Your task to perform on an android device: Search for the new lego star wars 2021 on Target Image 0: 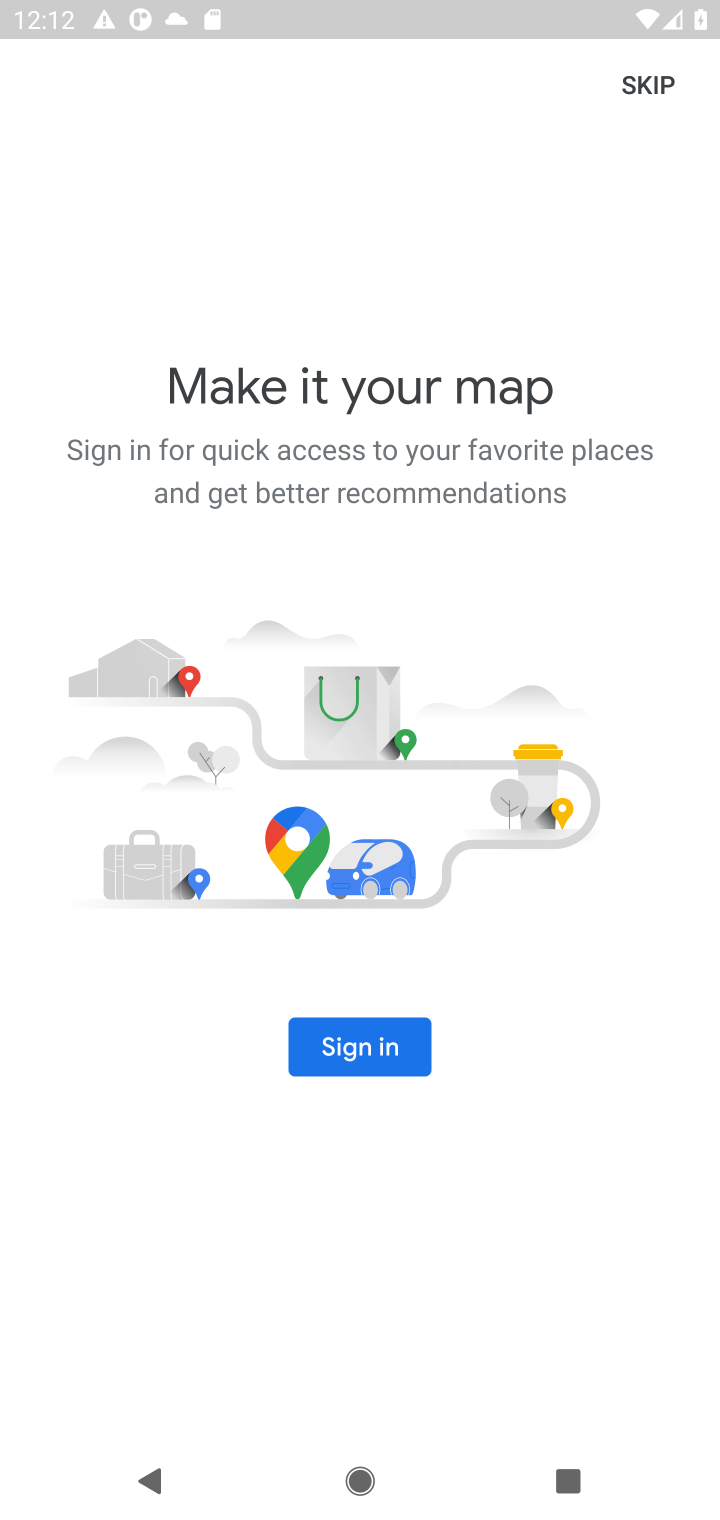
Step 0: press home button
Your task to perform on an android device: Search for the new lego star wars 2021 on Target Image 1: 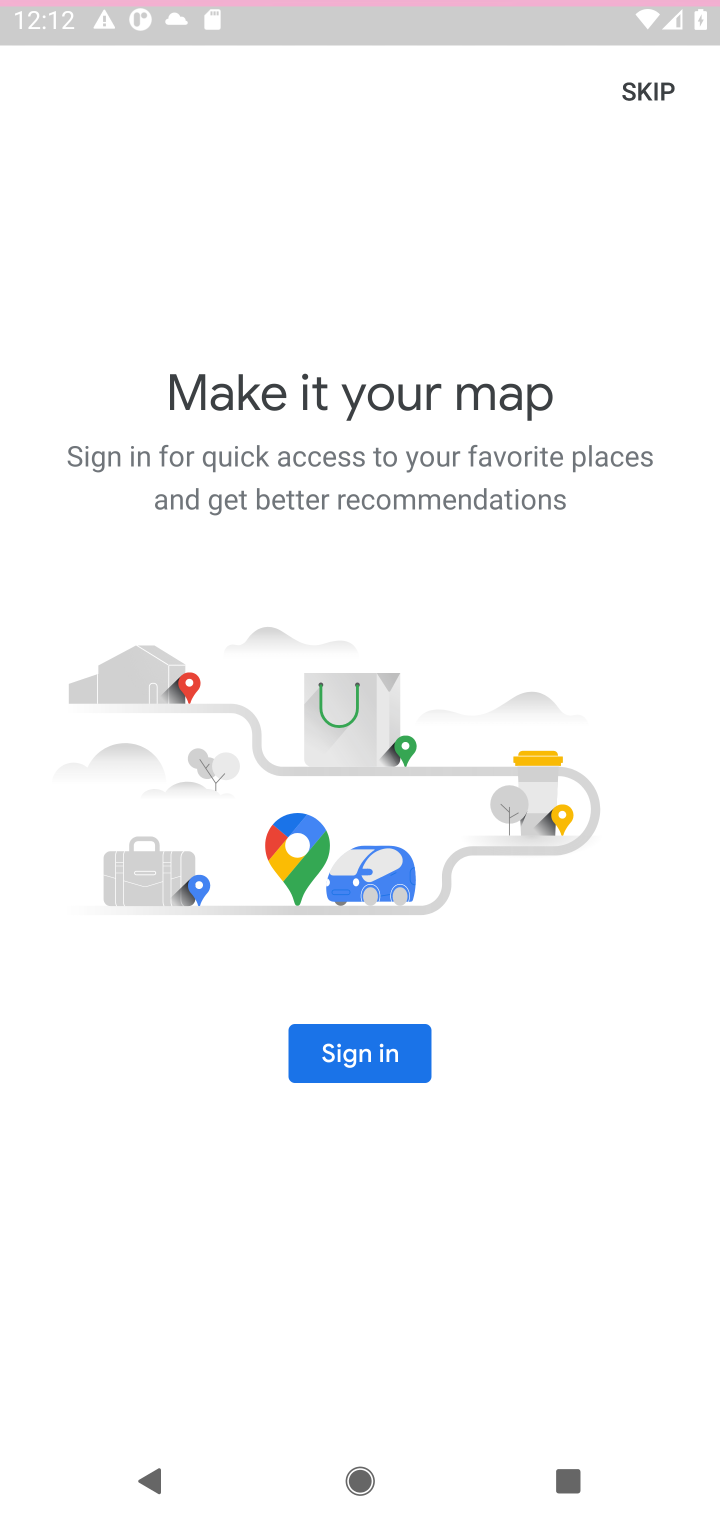
Step 1: press home button
Your task to perform on an android device: Search for the new lego star wars 2021 on Target Image 2: 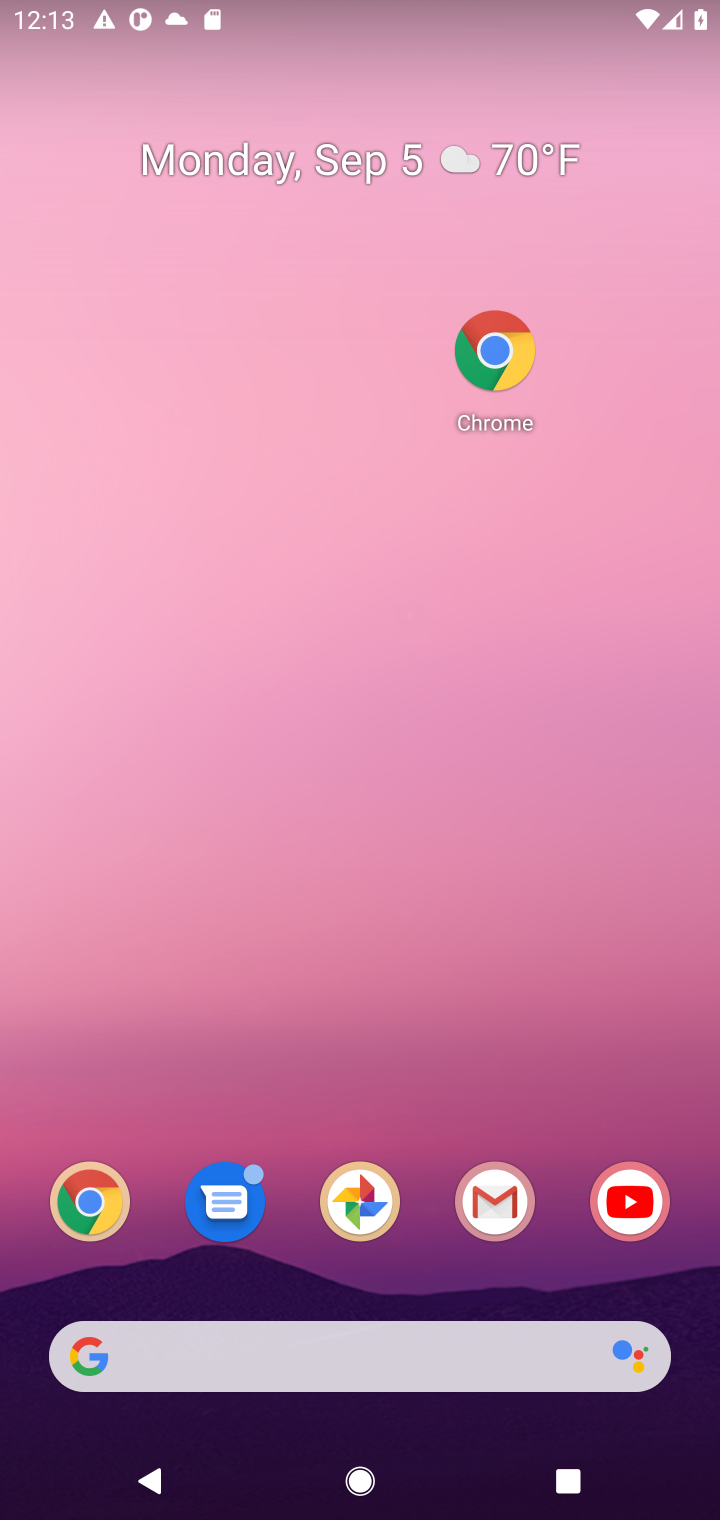
Step 2: drag from (628, 884) to (554, 200)
Your task to perform on an android device: Search for the new lego star wars 2021 on Target Image 3: 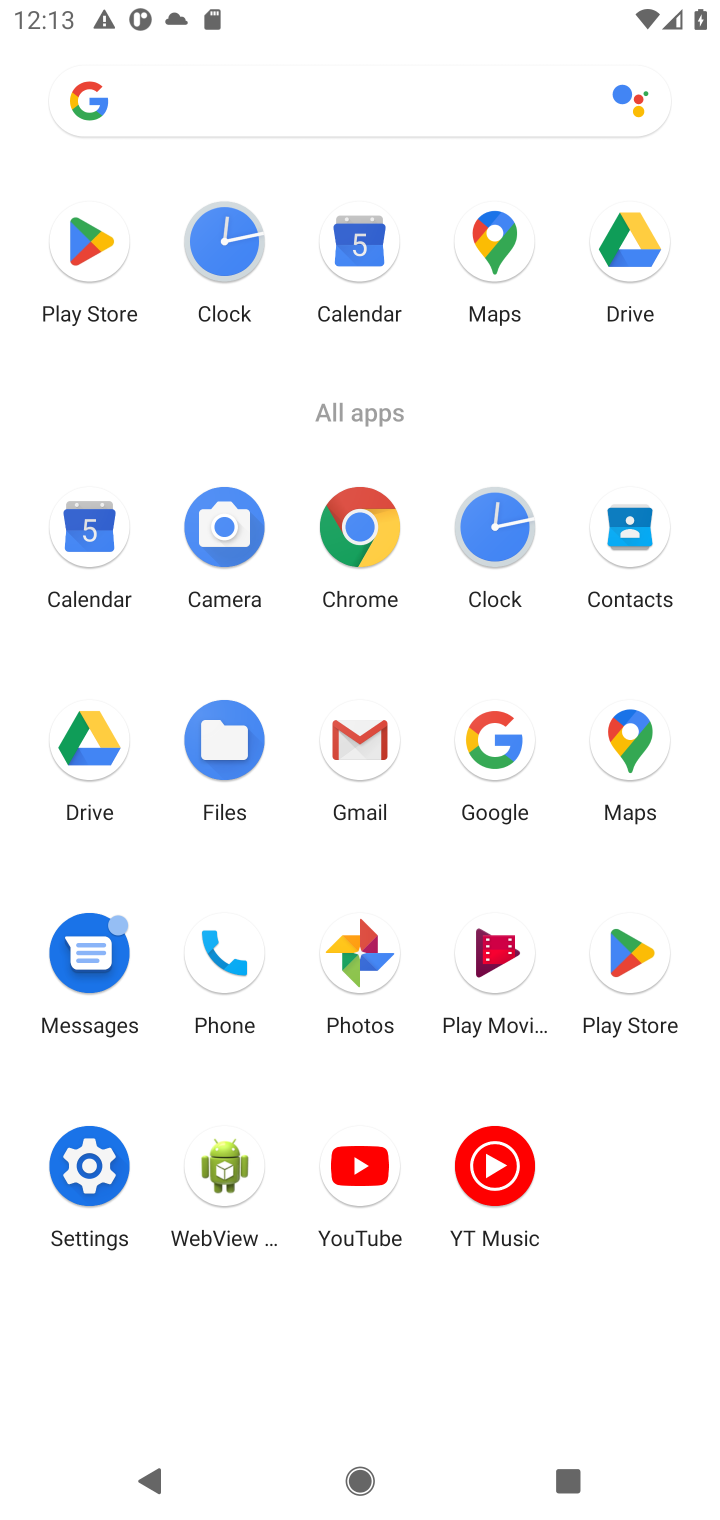
Step 3: click (346, 530)
Your task to perform on an android device: Search for the new lego star wars 2021 on Target Image 4: 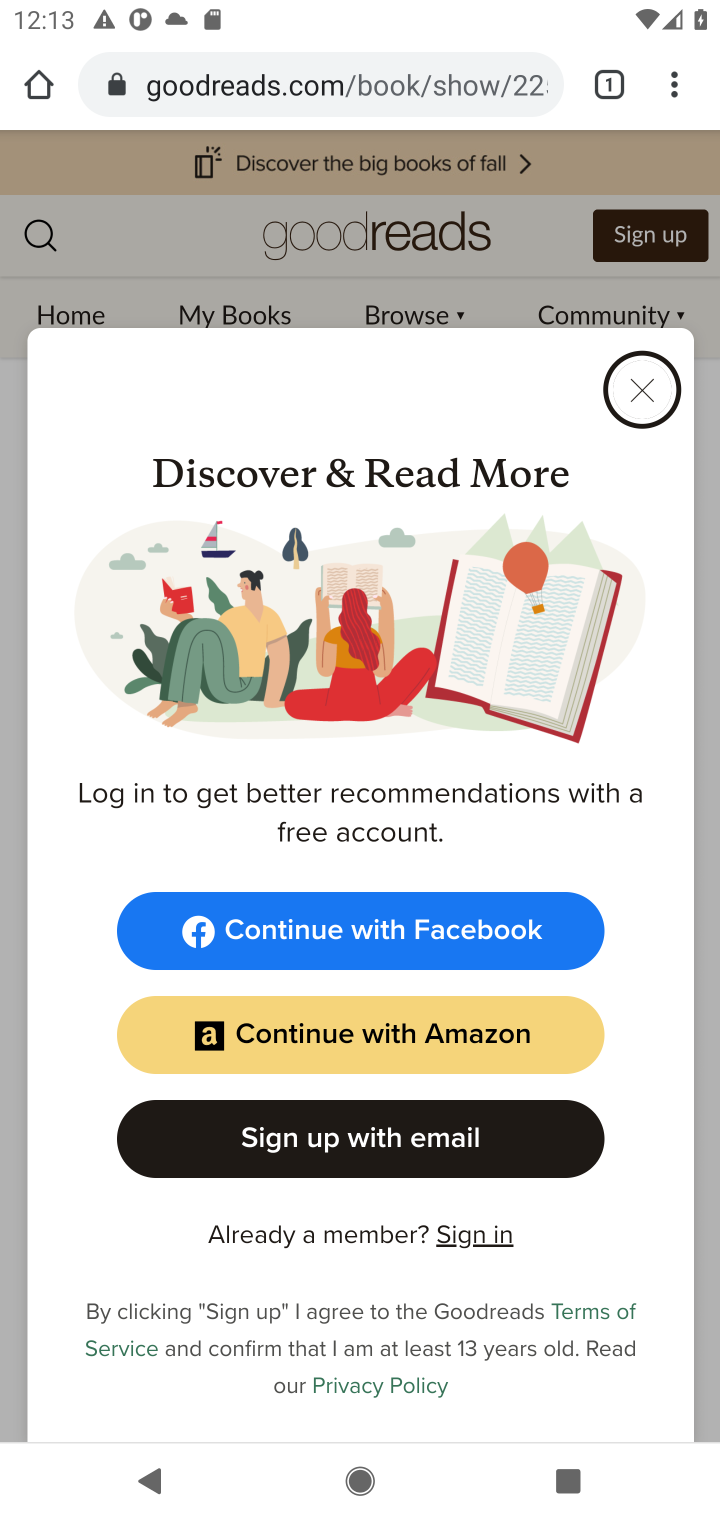
Step 4: click (416, 80)
Your task to perform on an android device: Search for the new lego star wars 2021 on Target Image 5: 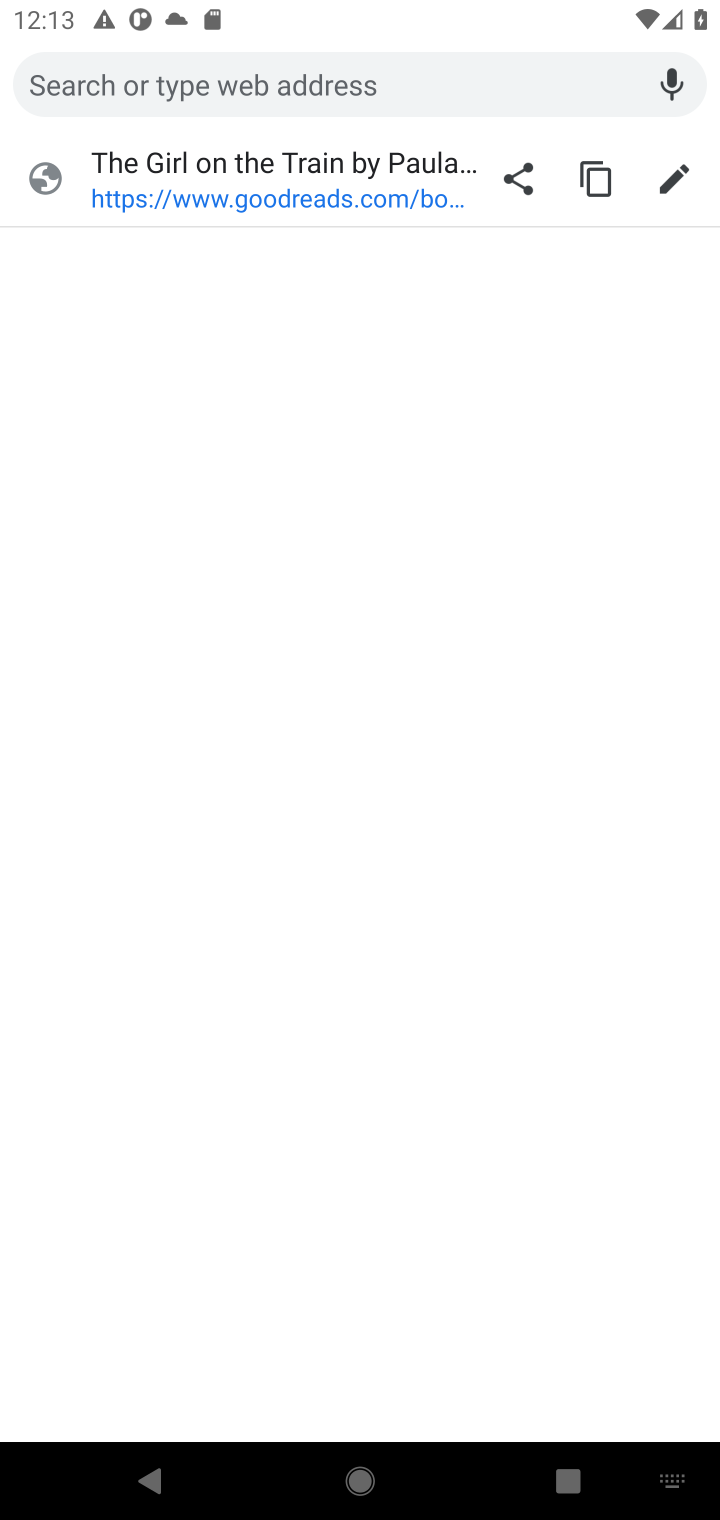
Step 5: type "new lego star wars 2021 on Target"
Your task to perform on an android device: Search for the new lego star wars 2021 on Target Image 6: 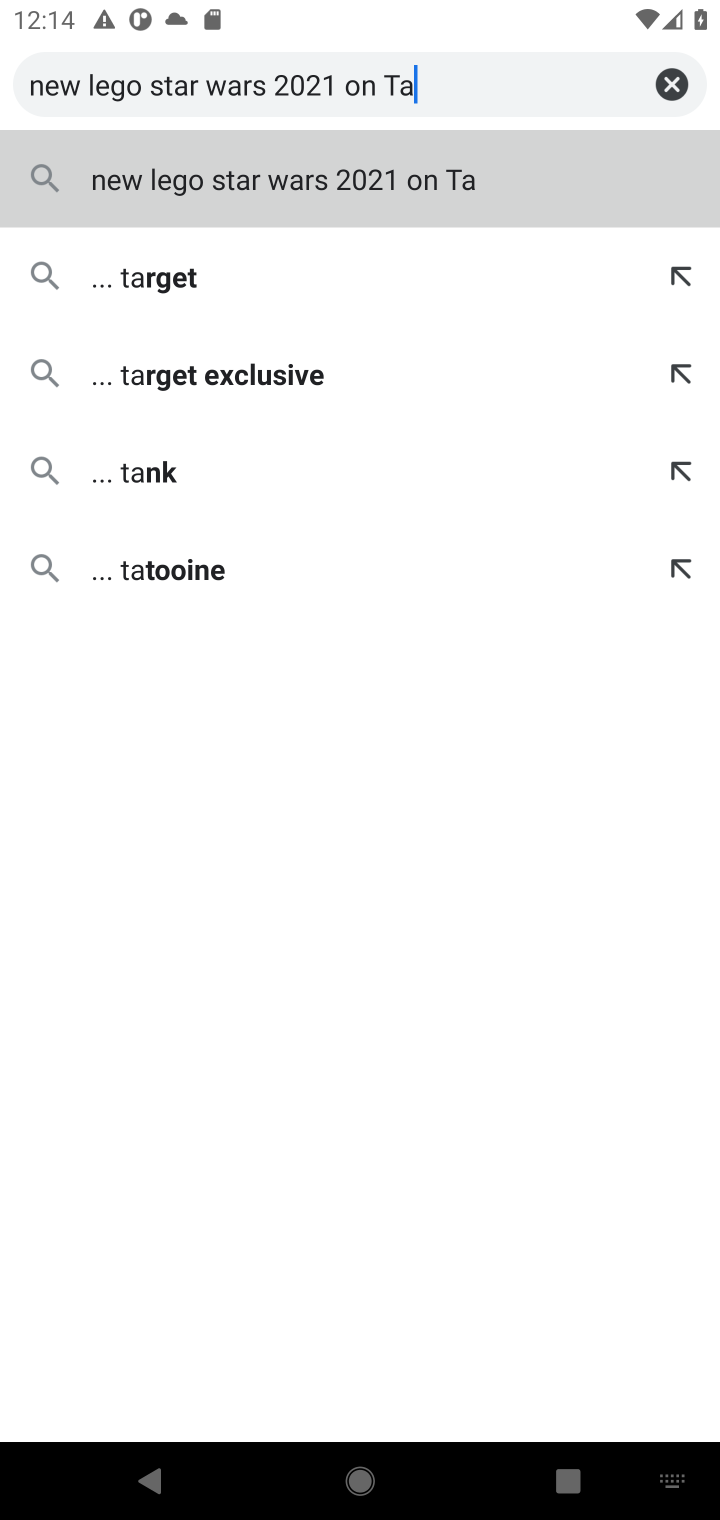
Step 6: type "rget"
Your task to perform on an android device: Search for the new lego star wars 2021 on Target Image 7: 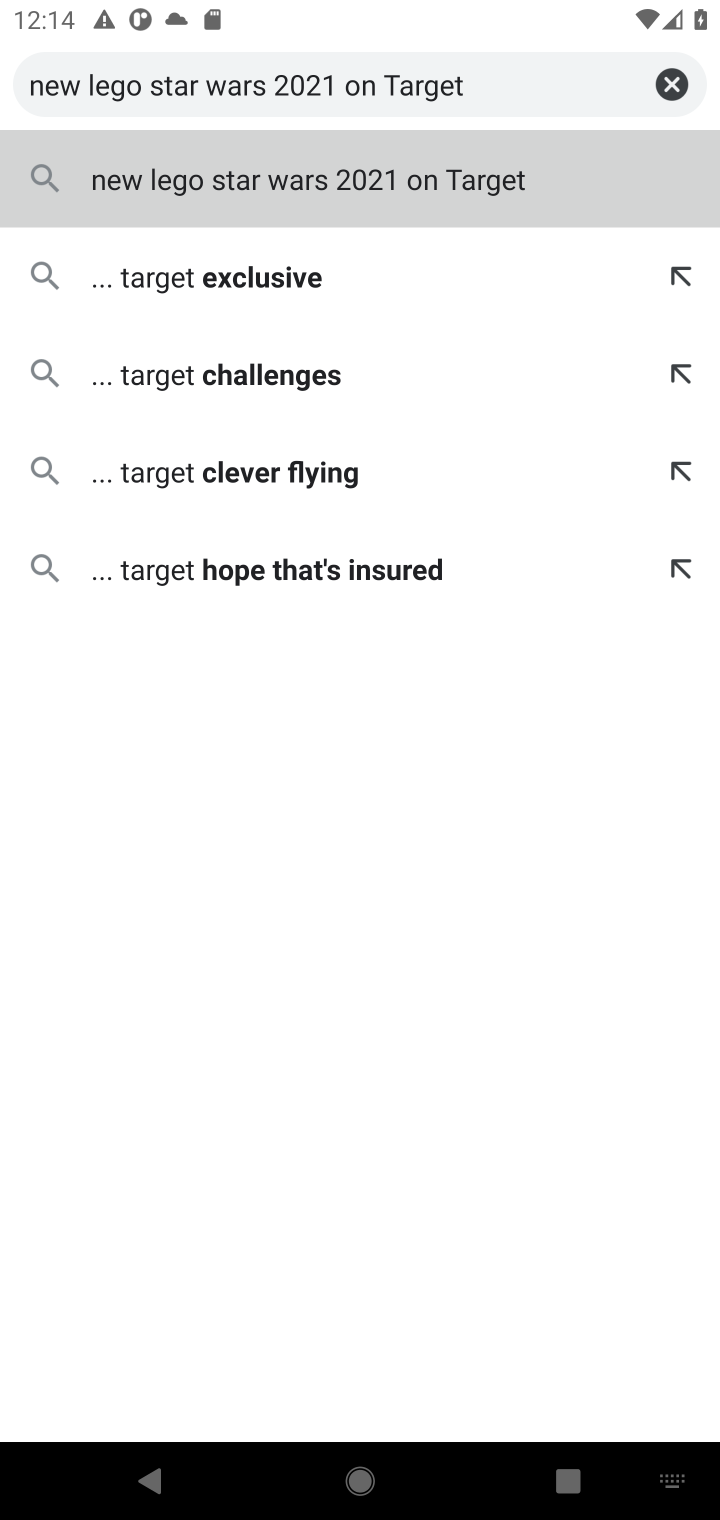
Step 7: press enter
Your task to perform on an android device: Search for the new lego star wars 2021 on Target Image 8: 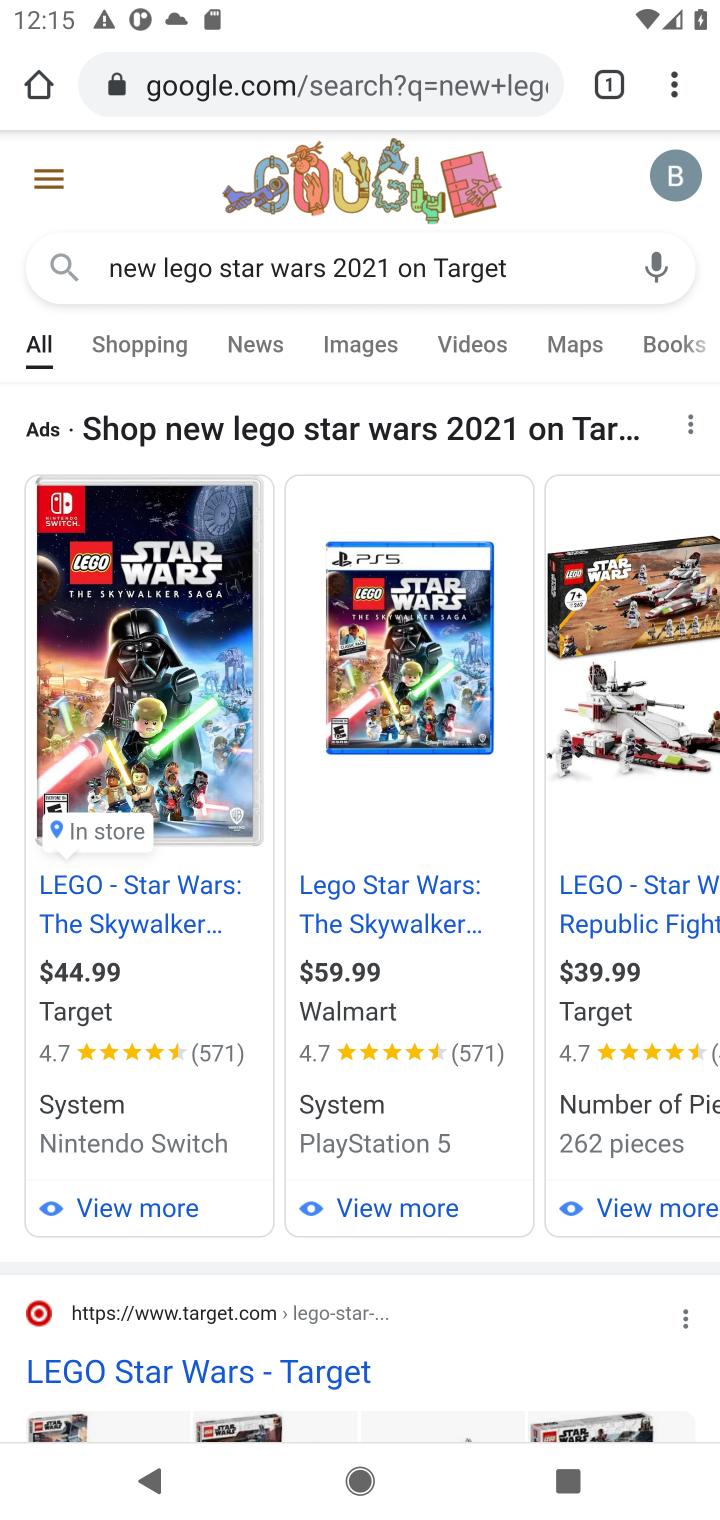
Step 8: drag from (472, 1325) to (531, 542)
Your task to perform on an android device: Search for the new lego star wars 2021 on Target Image 9: 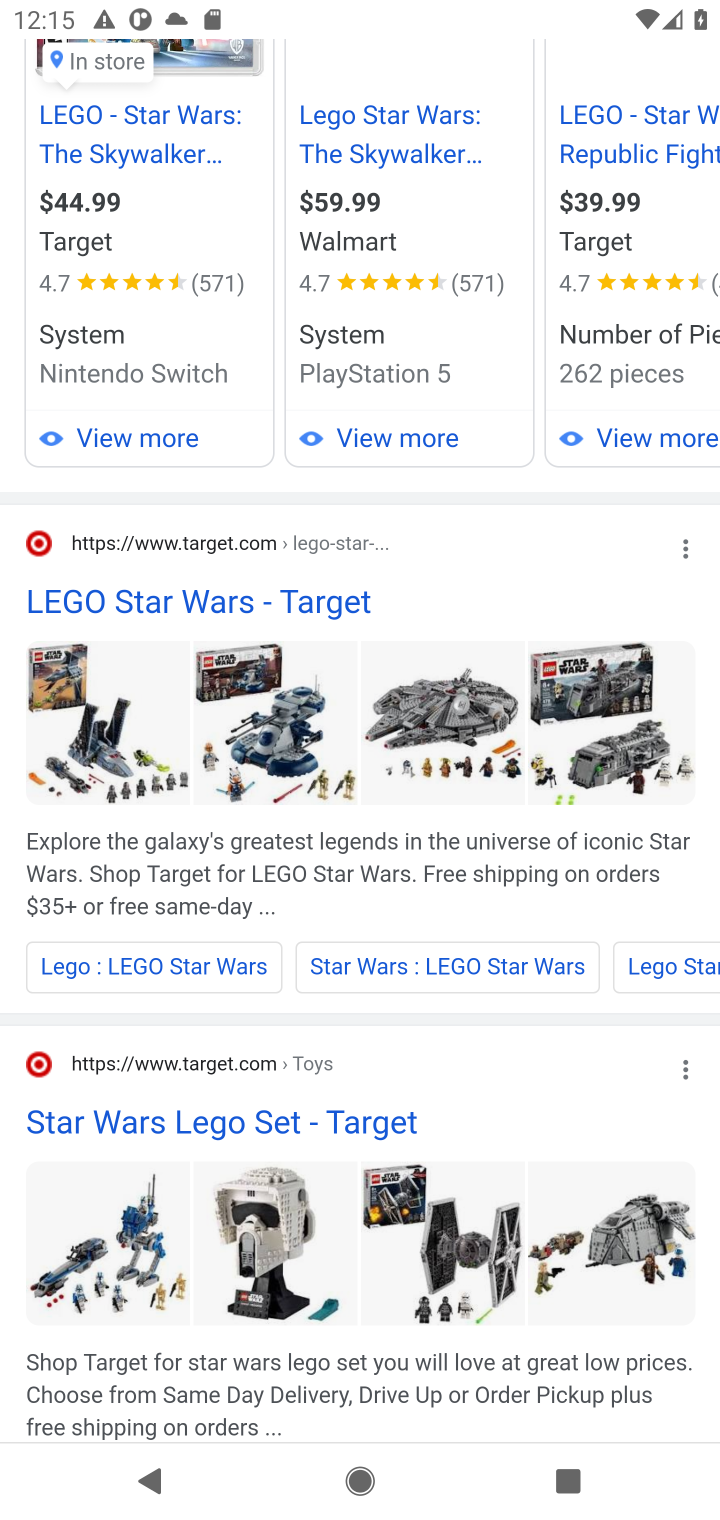
Step 9: click (307, 1112)
Your task to perform on an android device: Search for the new lego star wars 2021 on Target Image 10: 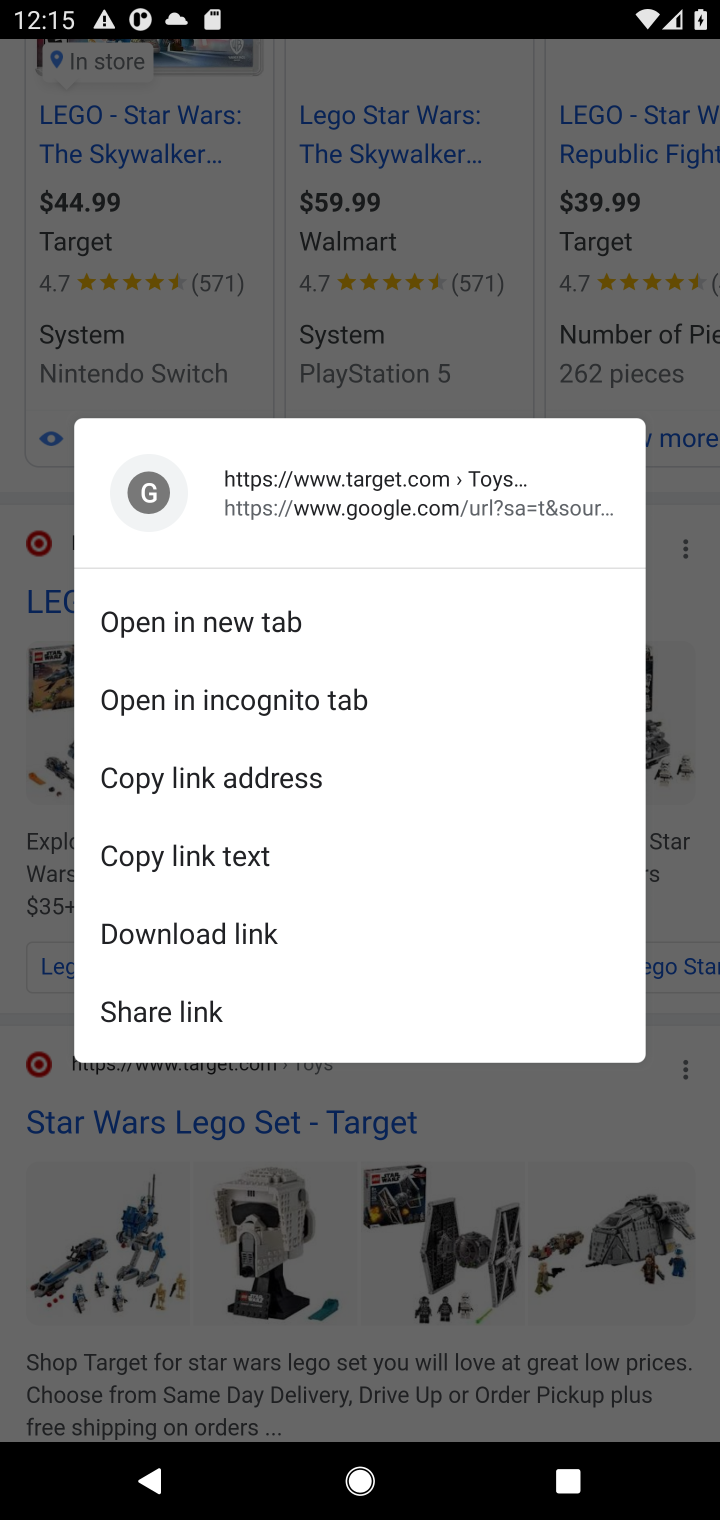
Step 10: click (382, 1178)
Your task to perform on an android device: Search for the new lego star wars 2021 on Target Image 11: 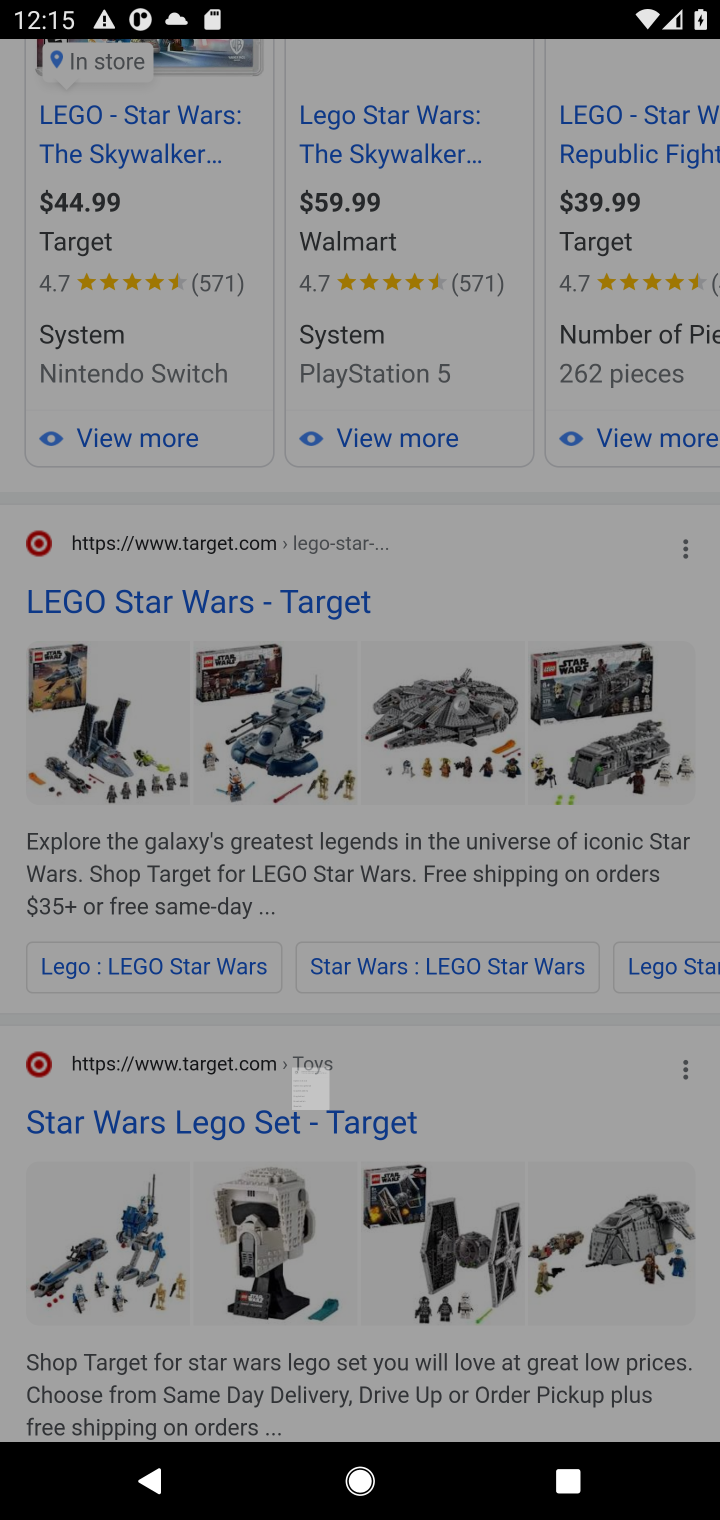
Step 11: click (324, 1121)
Your task to perform on an android device: Search for the new lego star wars 2021 on Target Image 12: 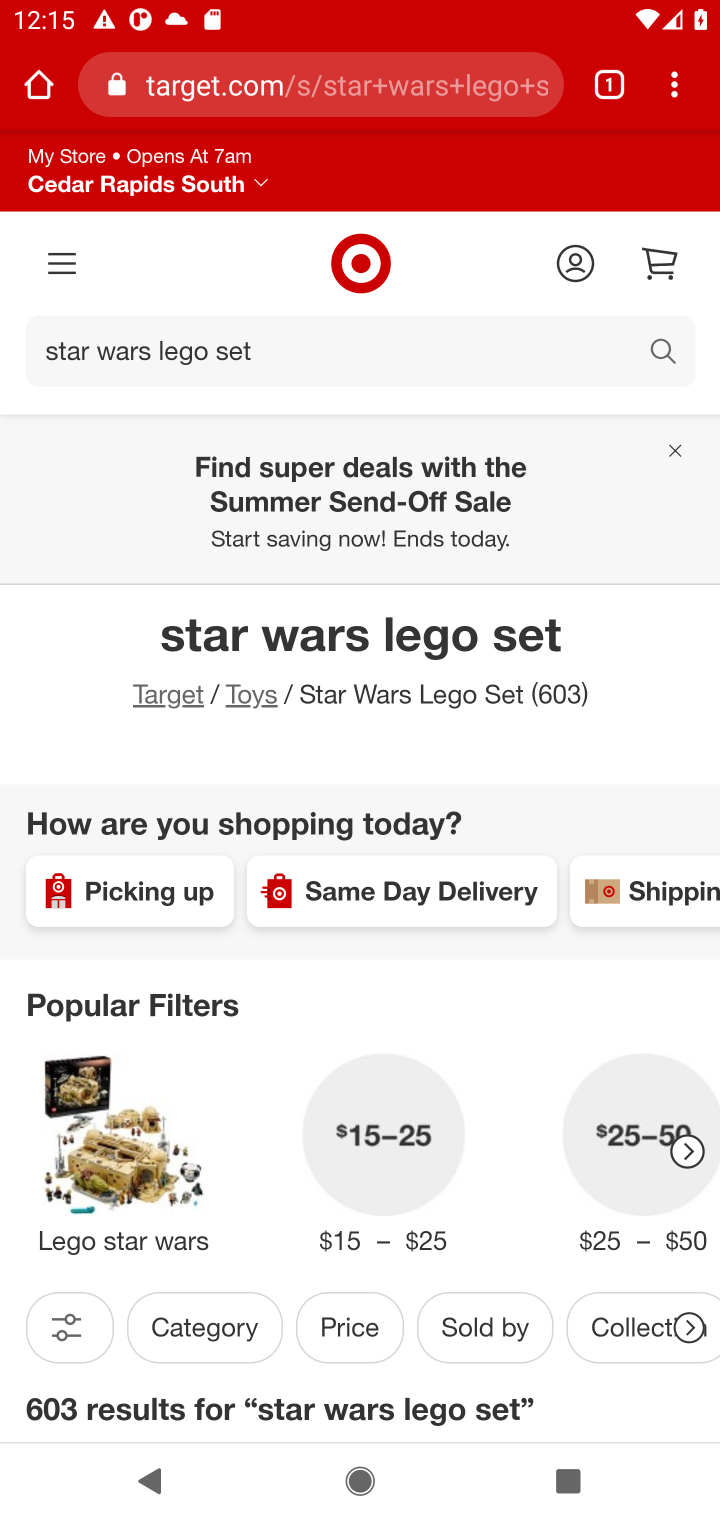
Step 12: task complete